Your task to perform on an android device: Go to Google Image 0: 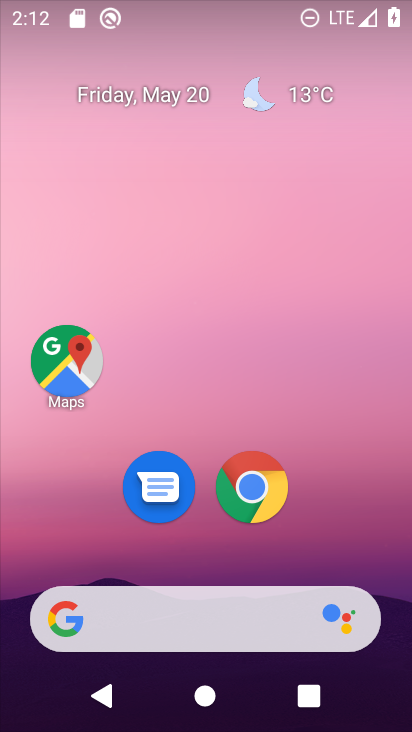
Step 0: drag from (208, 552) to (214, 75)
Your task to perform on an android device: Go to Google Image 1: 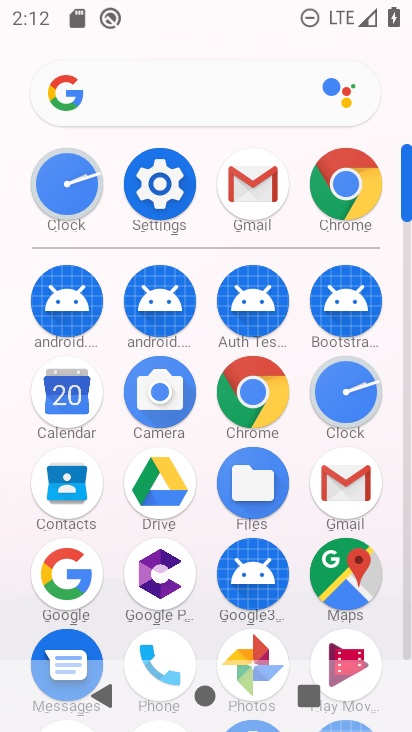
Step 1: click (60, 571)
Your task to perform on an android device: Go to Google Image 2: 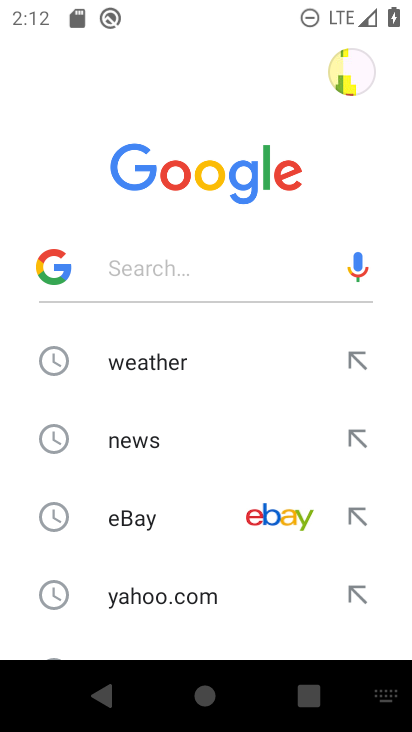
Step 2: press back button
Your task to perform on an android device: Go to Google Image 3: 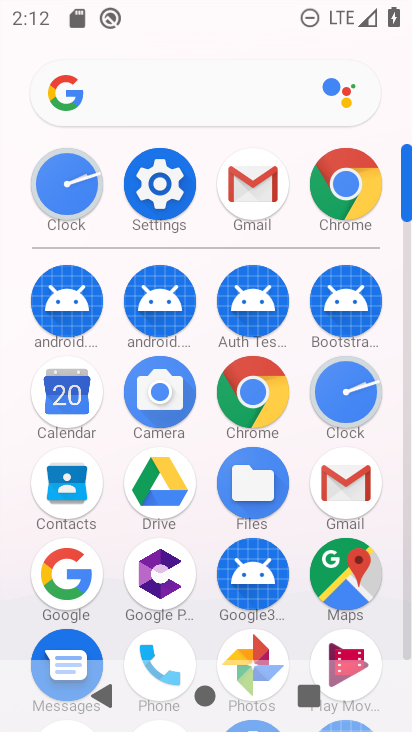
Step 3: click (57, 570)
Your task to perform on an android device: Go to Google Image 4: 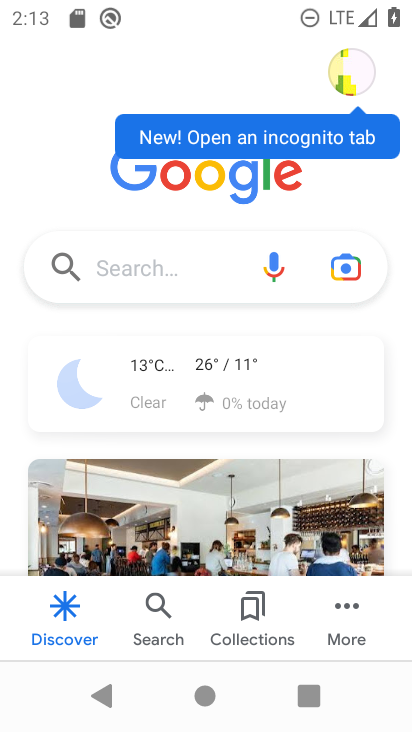
Step 4: task complete